Your task to perform on an android device: View the shopping cart on ebay.com. Image 0: 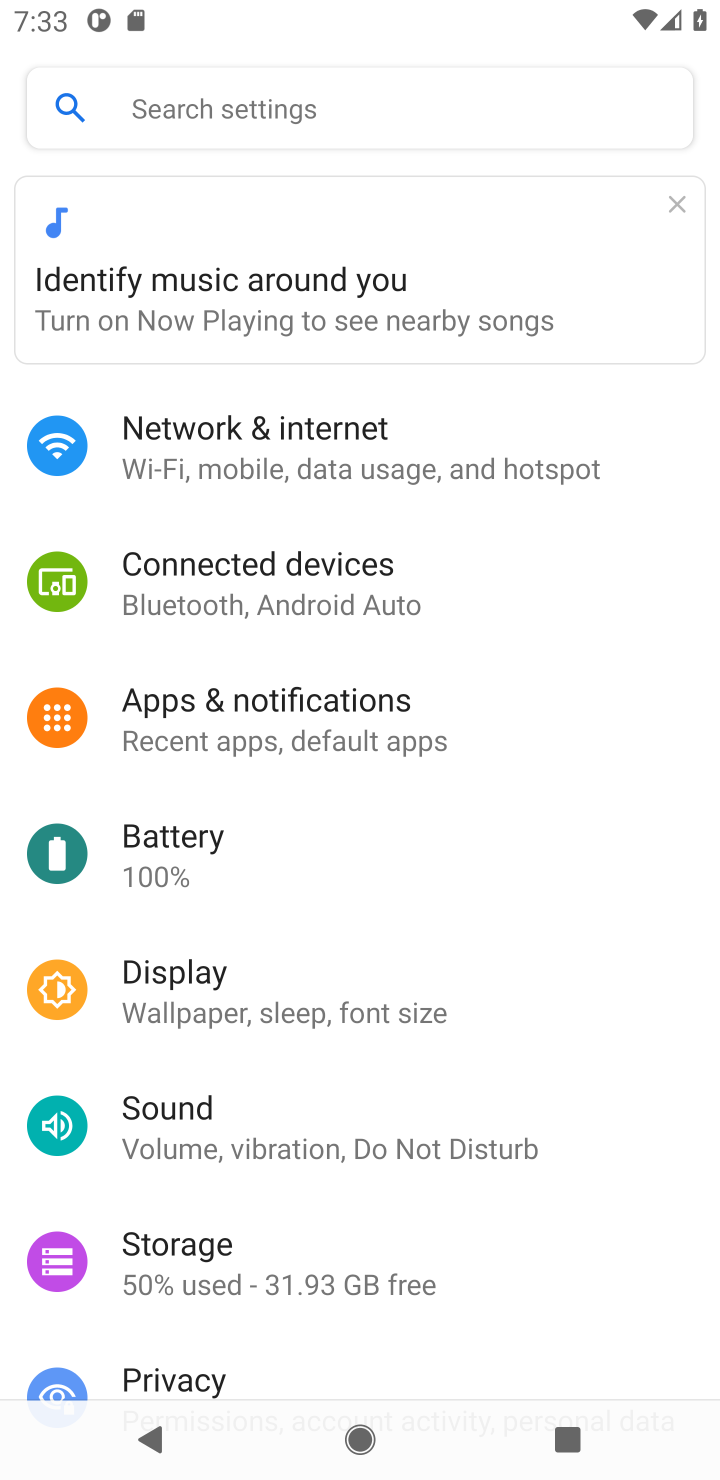
Step 0: press home button
Your task to perform on an android device: View the shopping cart on ebay.com. Image 1: 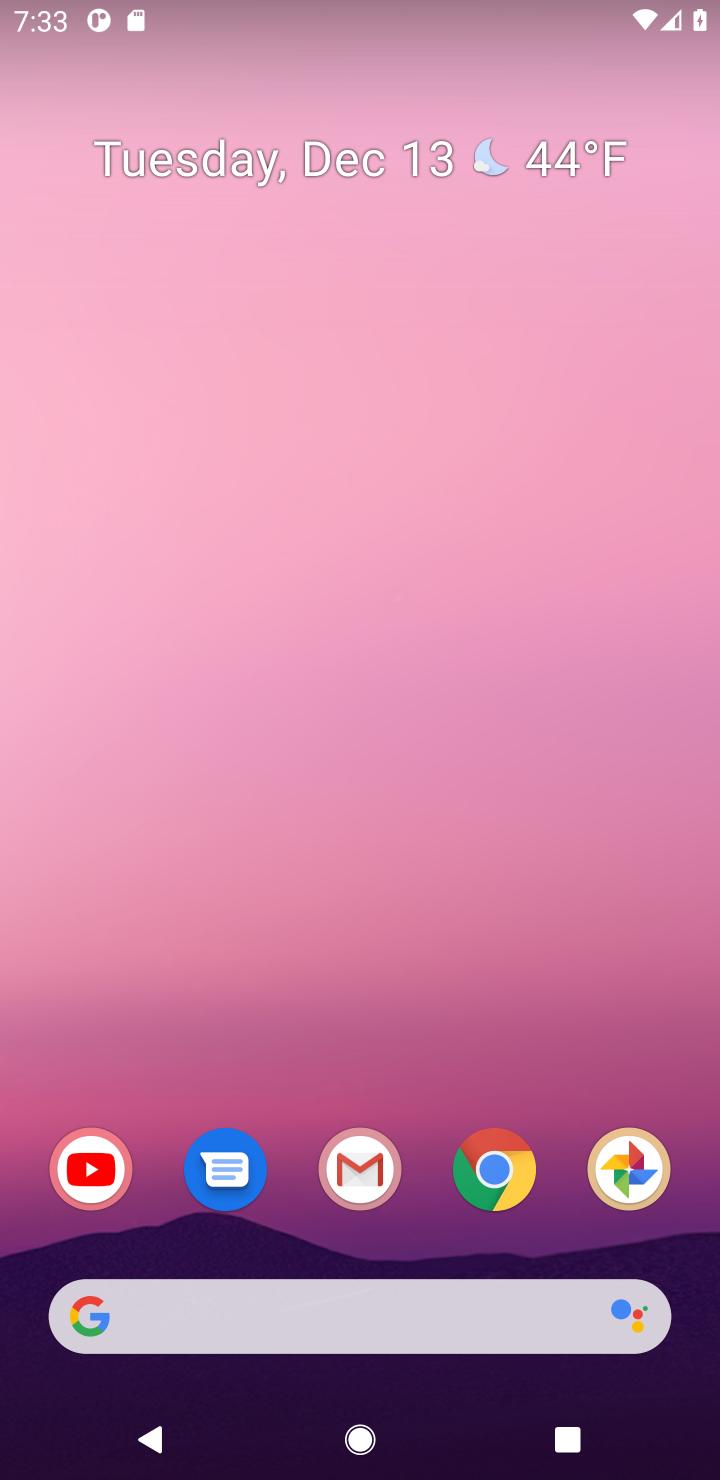
Step 1: click (468, 1197)
Your task to perform on an android device: View the shopping cart on ebay.com. Image 2: 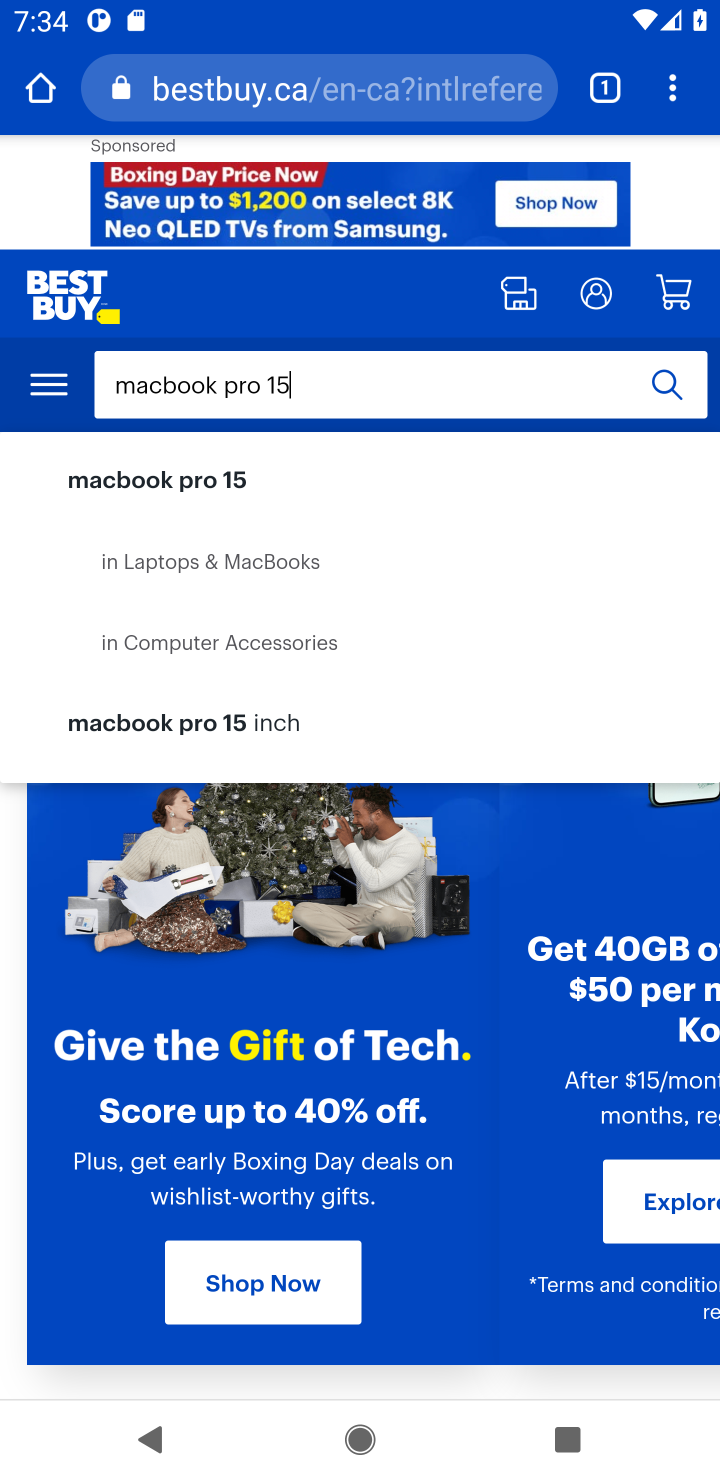
Step 2: click (298, 110)
Your task to perform on an android device: View the shopping cart on ebay.com. Image 3: 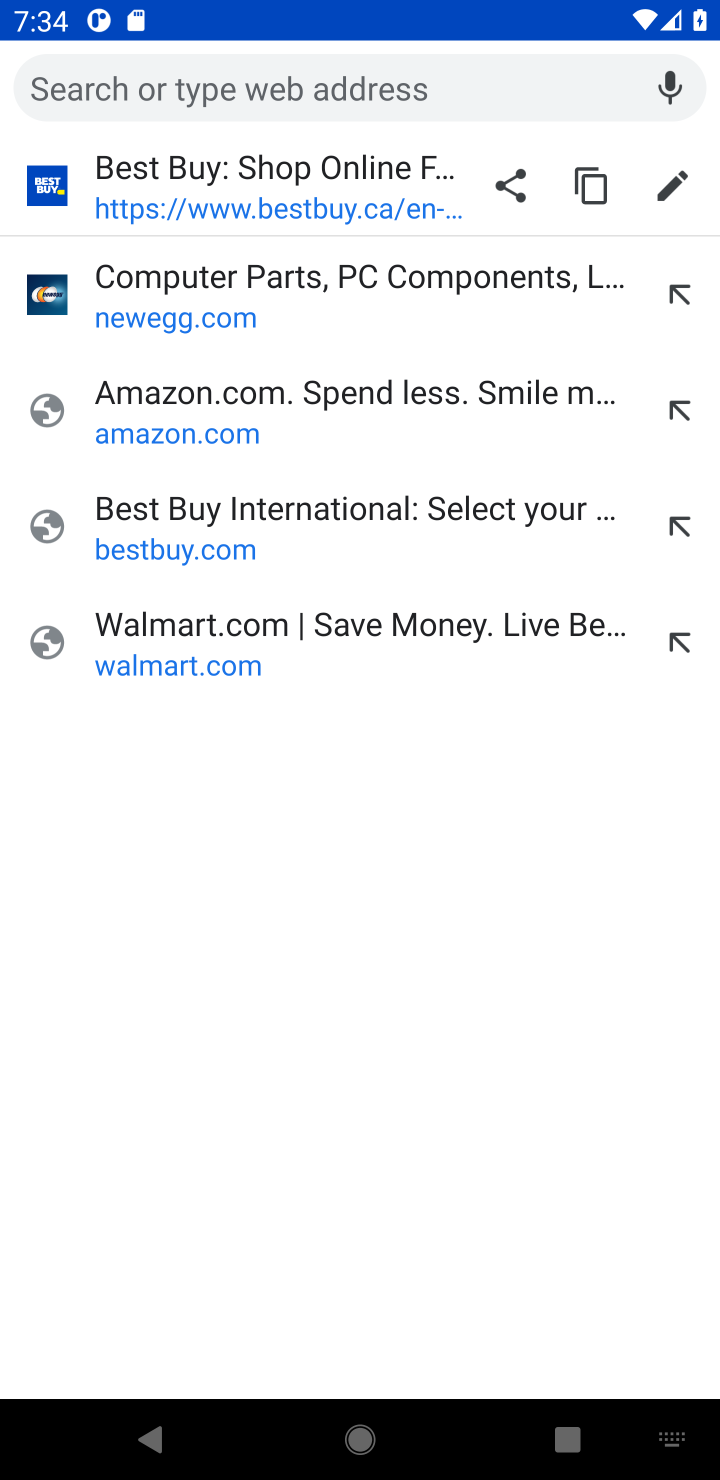
Step 3: type "ebay"
Your task to perform on an android device: View the shopping cart on ebay.com. Image 4: 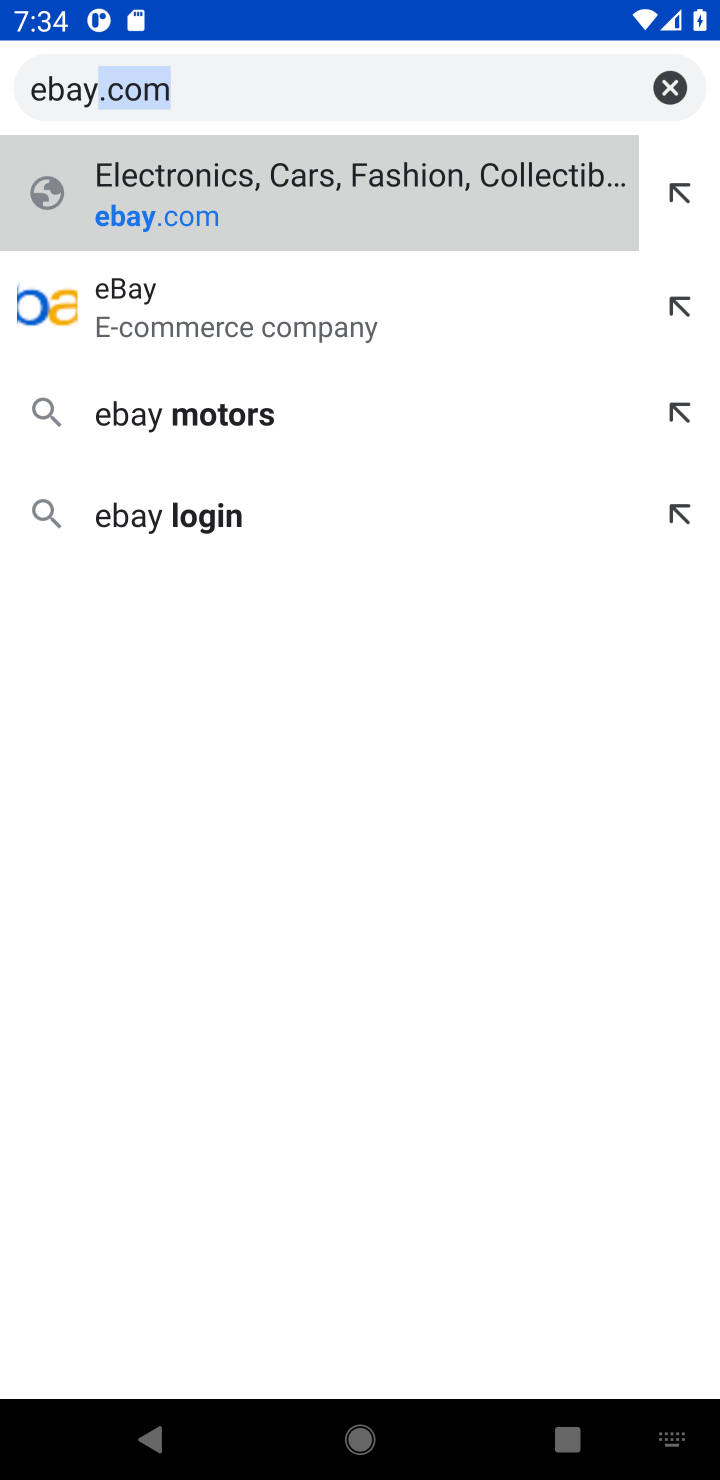
Step 4: click (301, 192)
Your task to perform on an android device: View the shopping cart on ebay.com. Image 5: 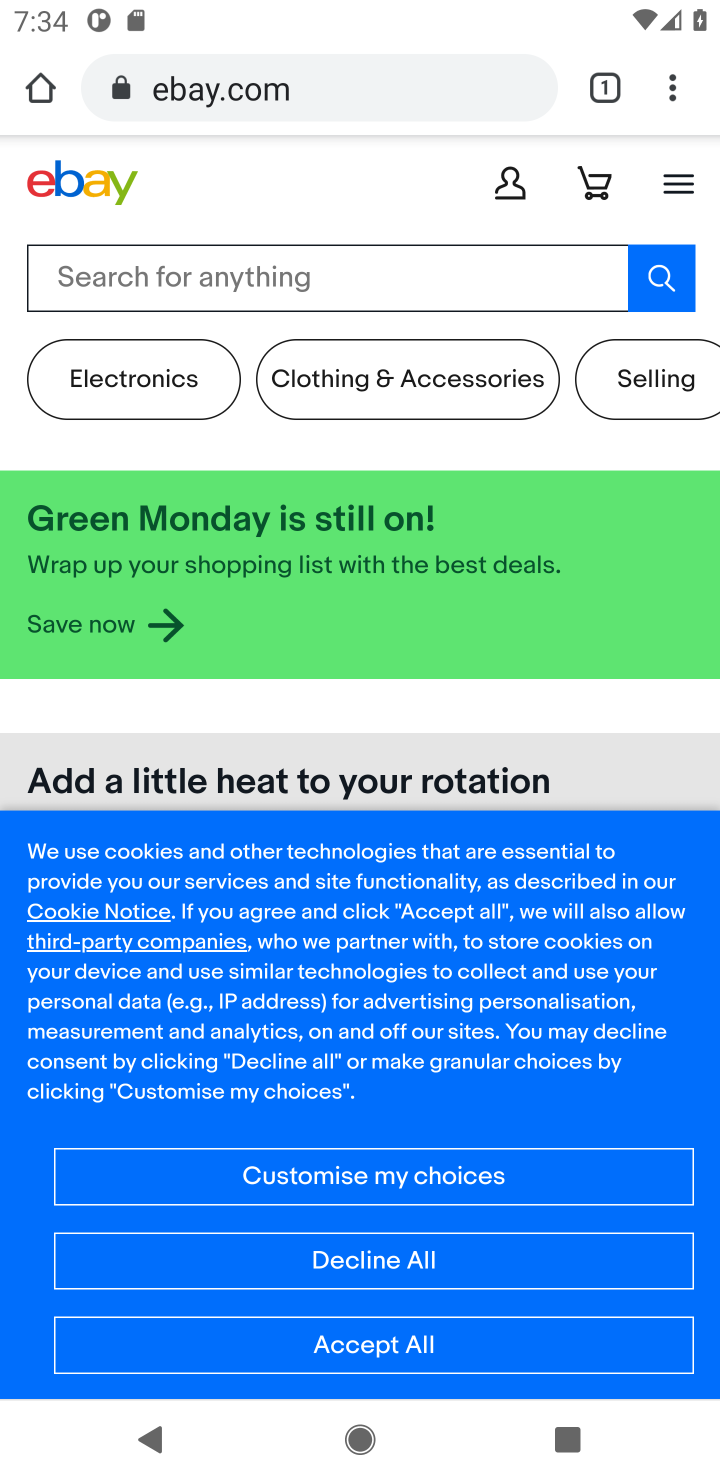
Step 5: click (180, 266)
Your task to perform on an android device: View the shopping cart on ebay.com. Image 6: 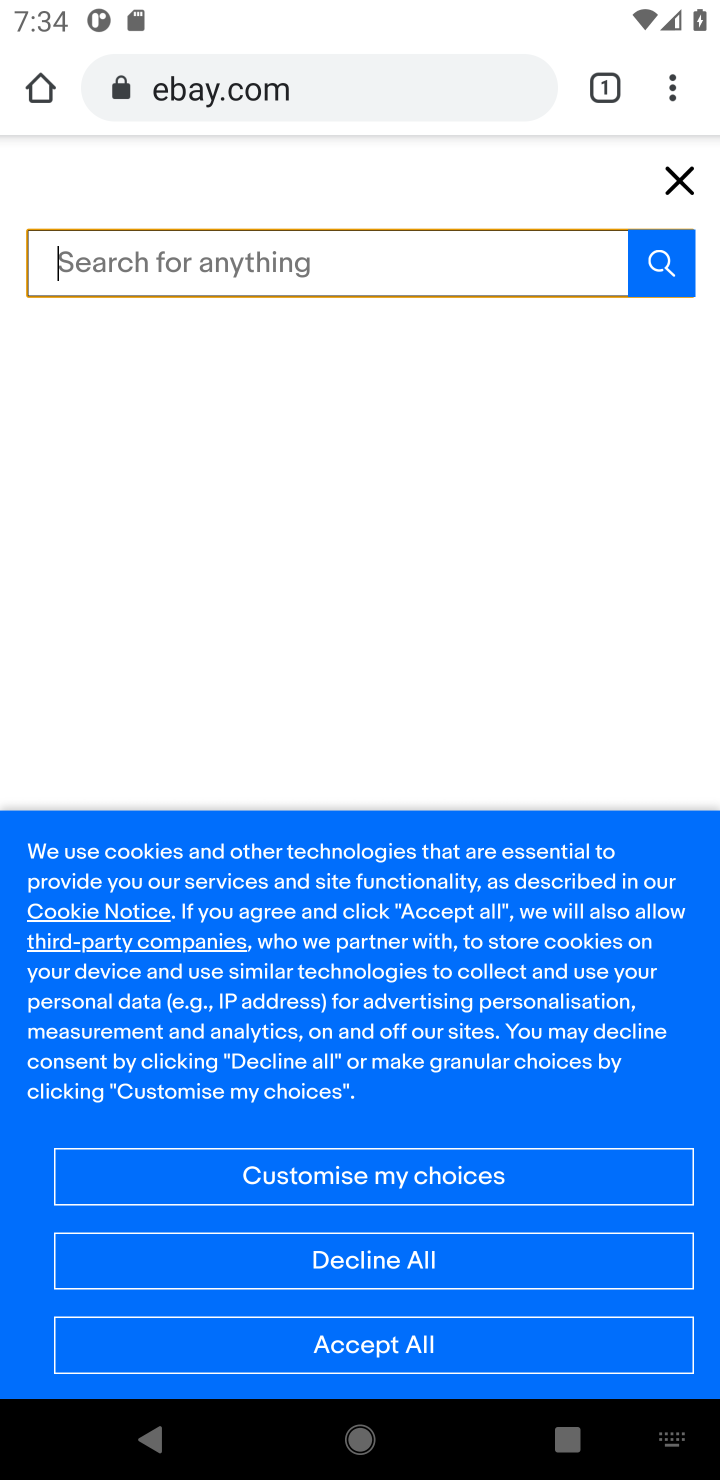
Step 6: click (573, 185)
Your task to perform on an android device: View the shopping cart on ebay.com. Image 7: 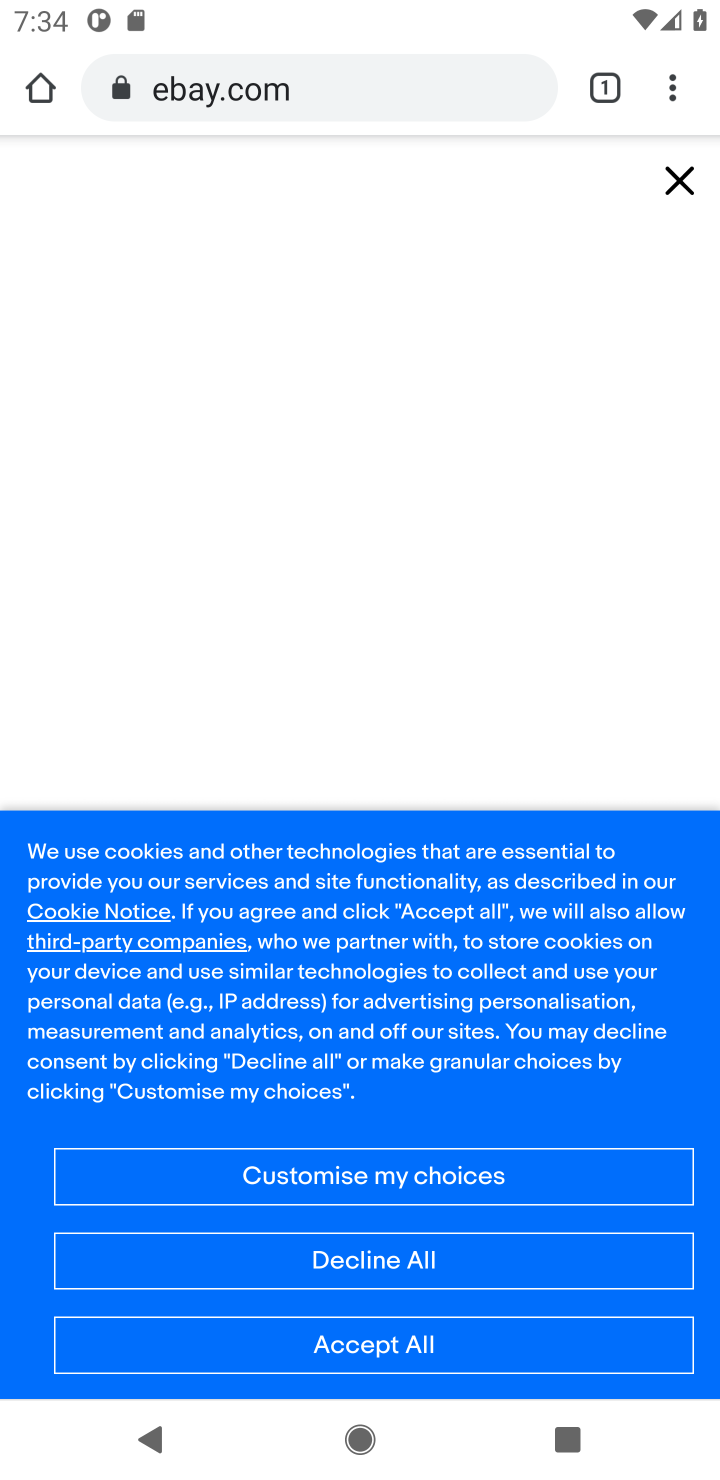
Step 7: click (654, 185)
Your task to perform on an android device: View the shopping cart on ebay.com. Image 8: 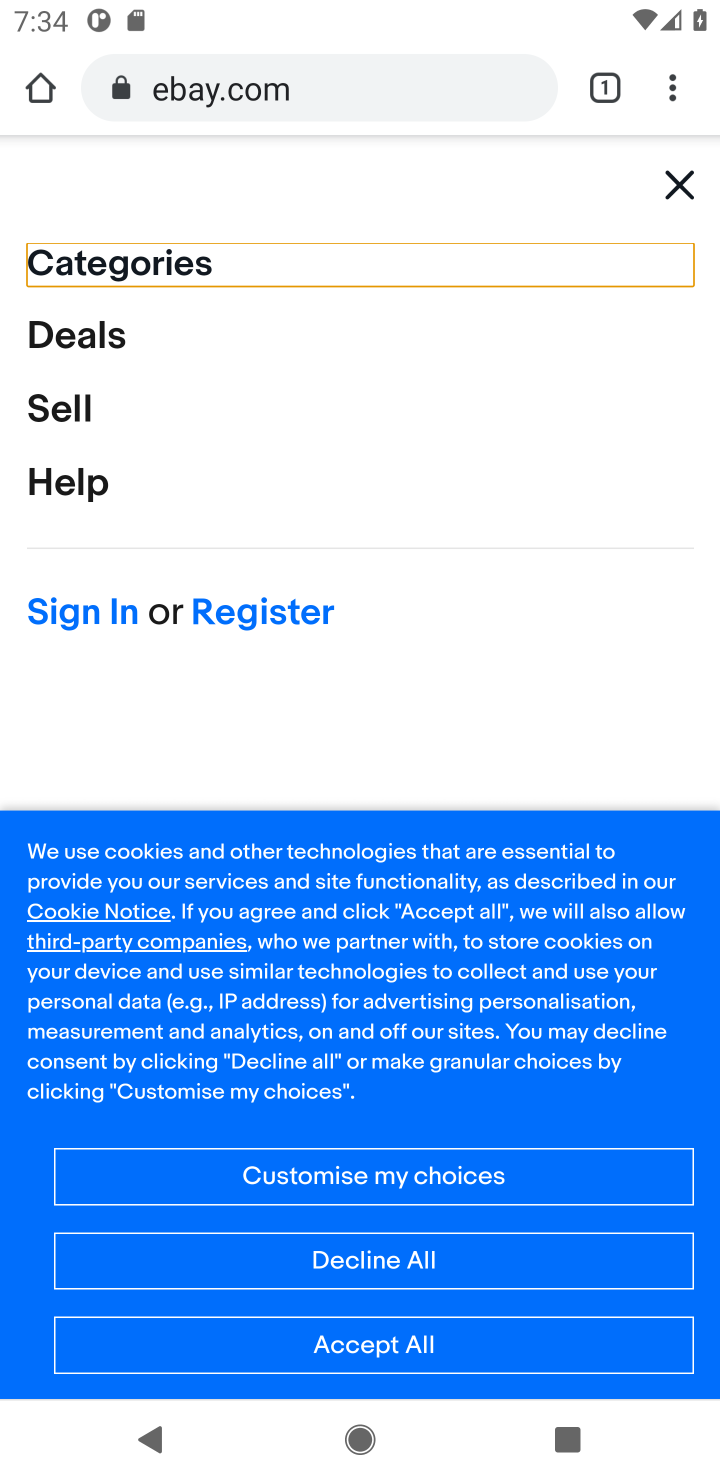
Step 8: click (601, 185)
Your task to perform on an android device: View the shopping cart on ebay.com. Image 9: 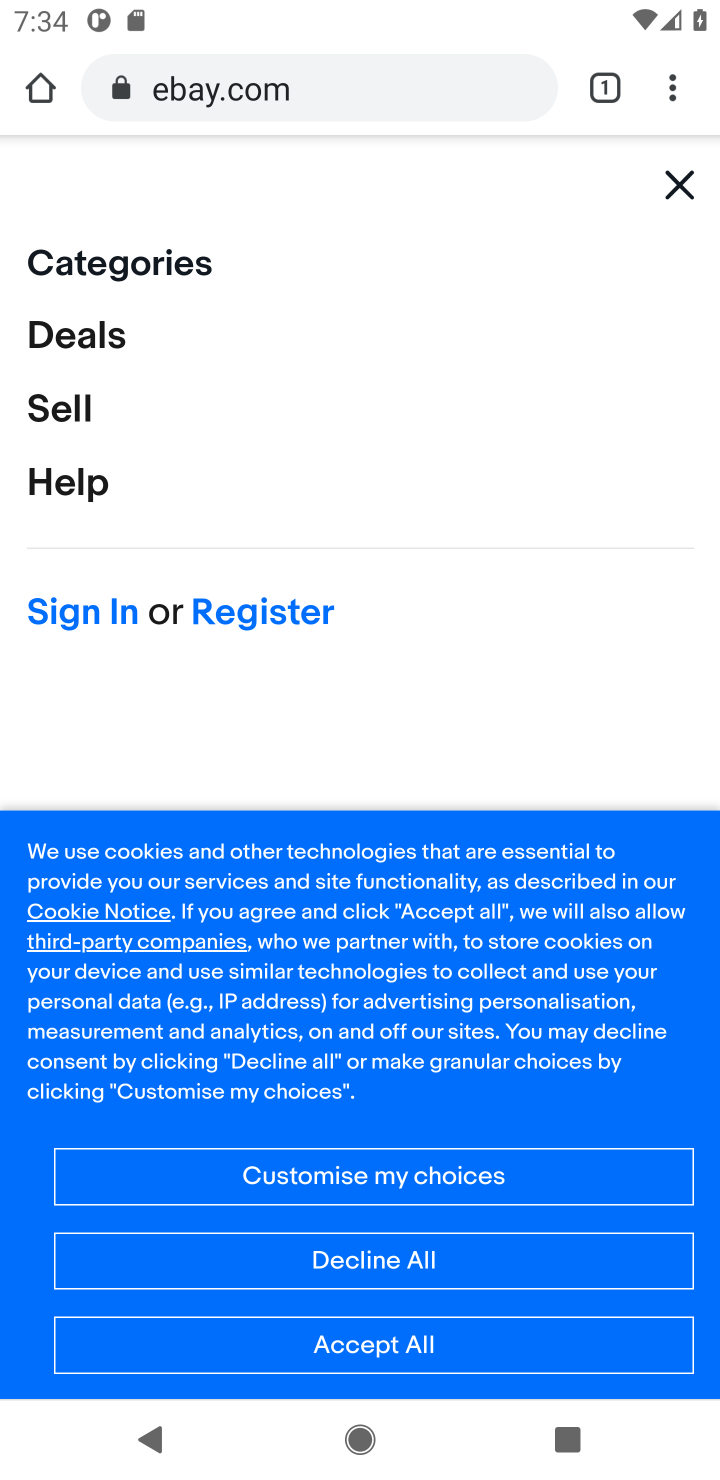
Step 9: click (687, 185)
Your task to perform on an android device: View the shopping cart on ebay.com. Image 10: 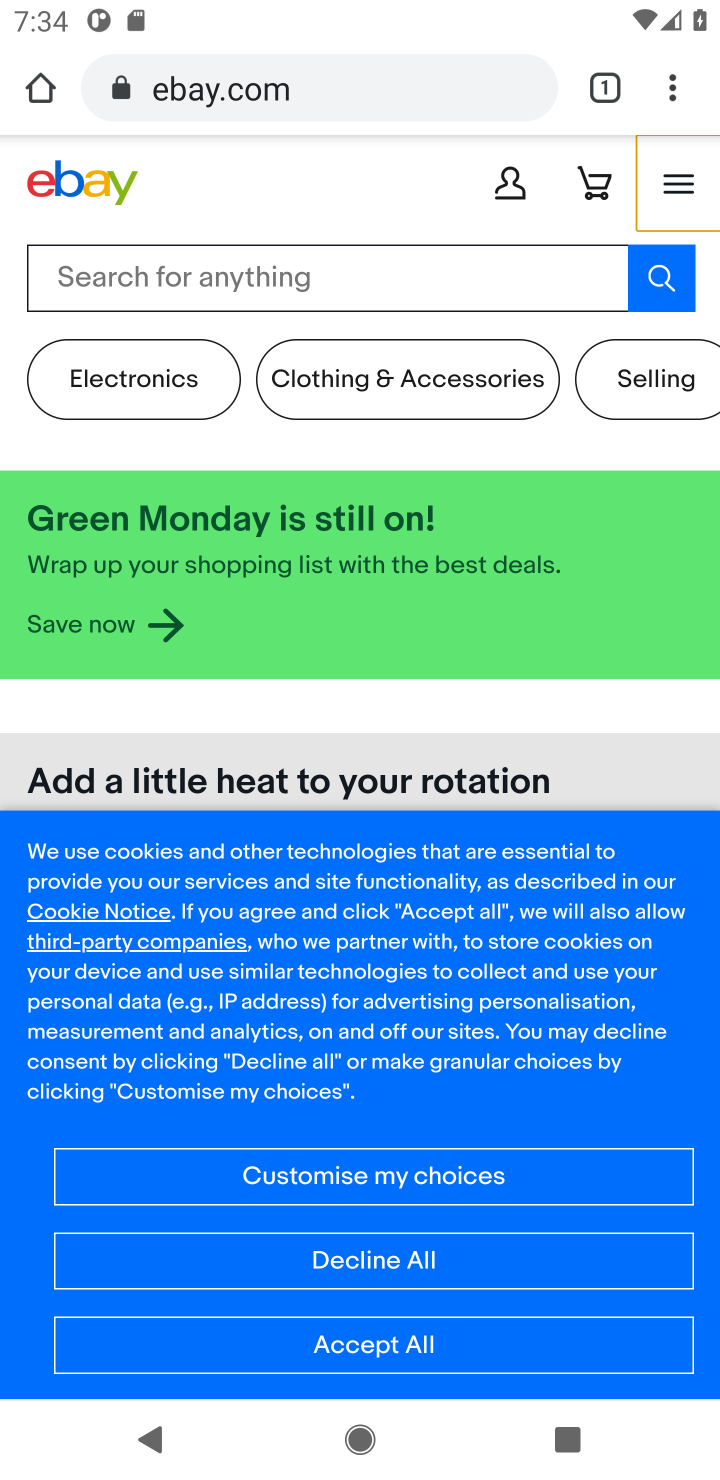
Step 10: click (590, 185)
Your task to perform on an android device: View the shopping cart on ebay.com. Image 11: 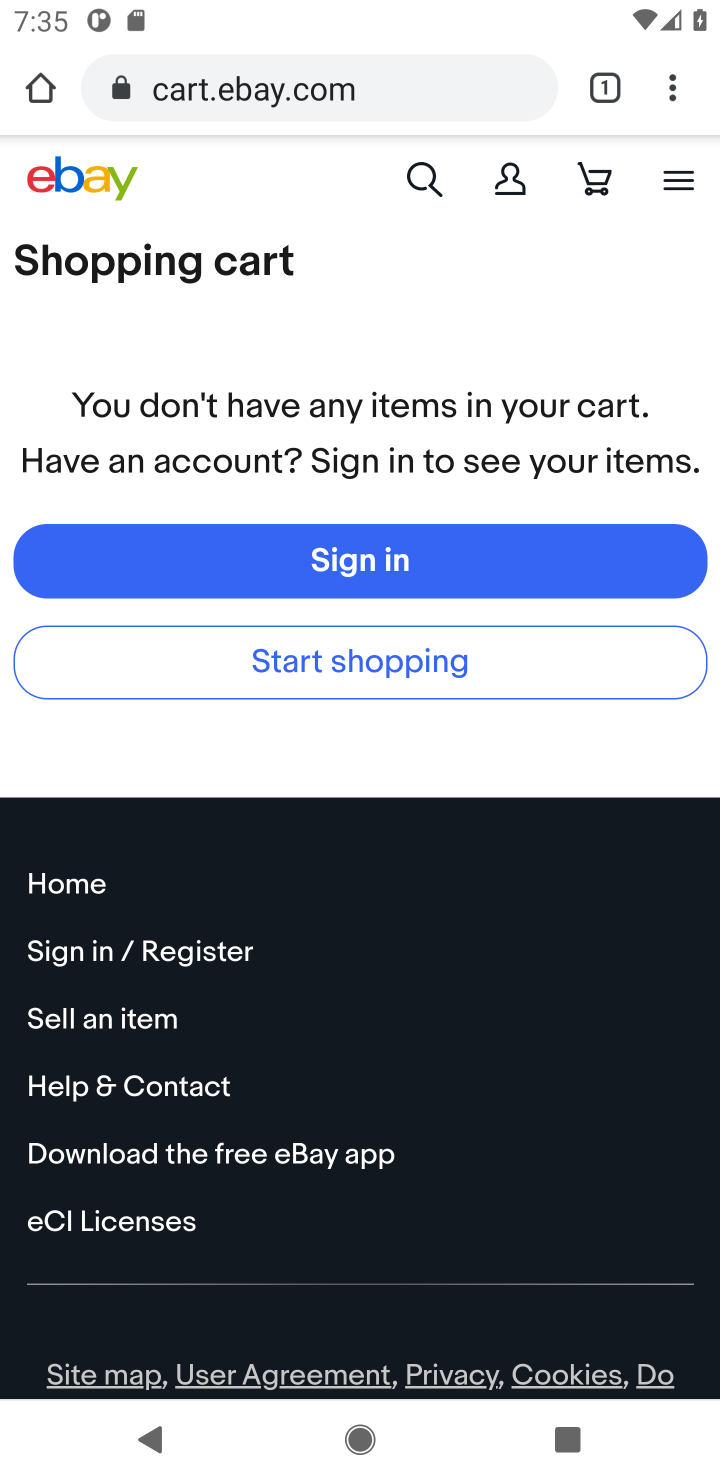
Step 11: task complete